Your task to perform on an android device: Go to accessibility settings Image 0: 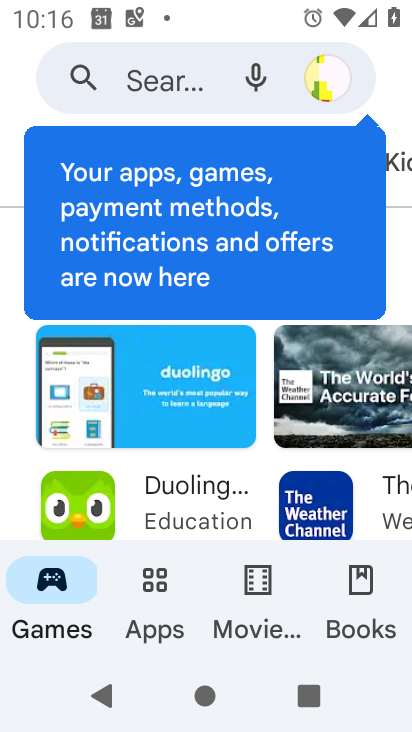
Step 0: press home button
Your task to perform on an android device: Go to accessibility settings Image 1: 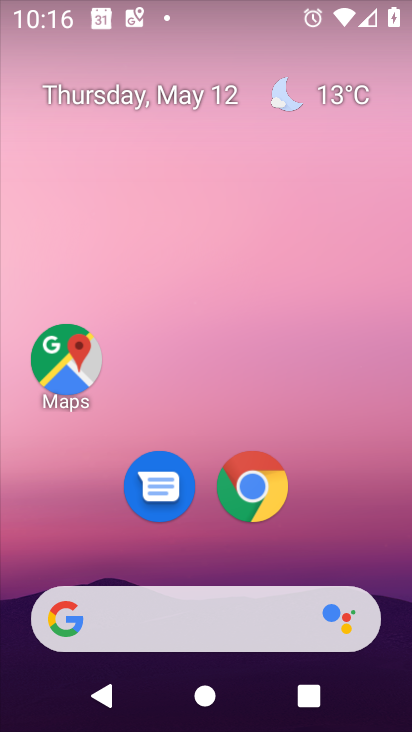
Step 1: drag from (349, 331) to (287, 6)
Your task to perform on an android device: Go to accessibility settings Image 2: 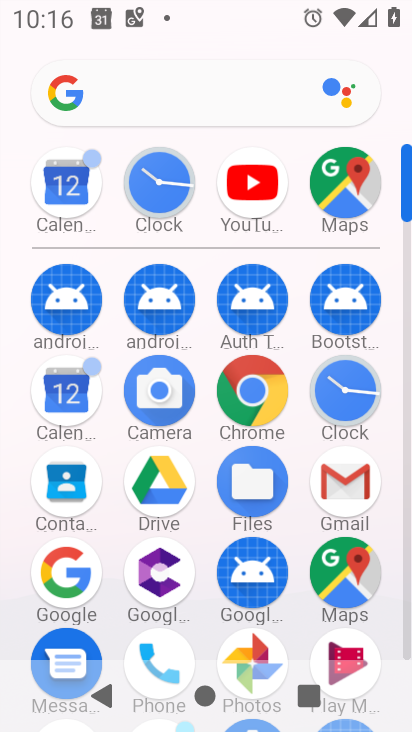
Step 2: drag from (202, 260) to (189, 30)
Your task to perform on an android device: Go to accessibility settings Image 3: 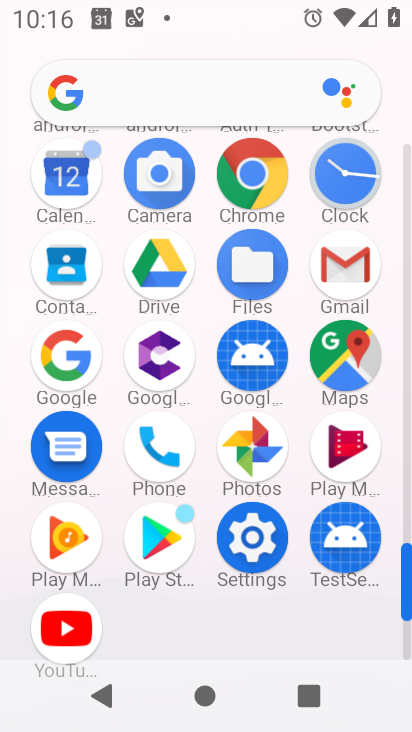
Step 3: click (262, 548)
Your task to perform on an android device: Go to accessibility settings Image 4: 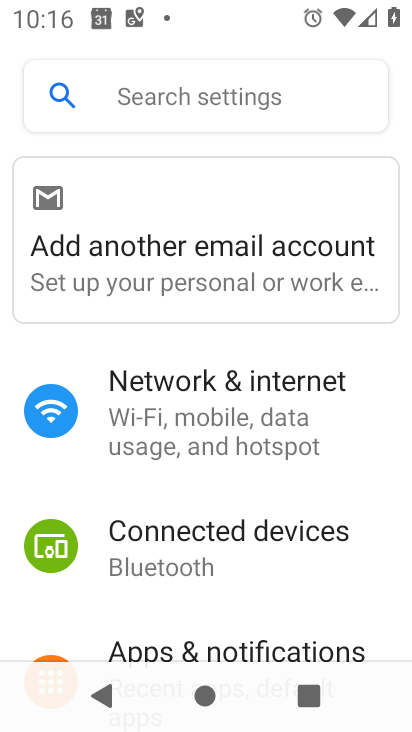
Step 4: drag from (321, 600) to (225, 289)
Your task to perform on an android device: Go to accessibility settings Image 5: 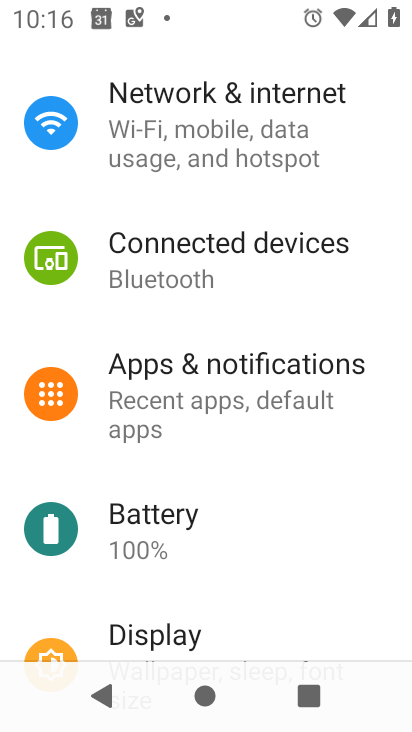
Step 5: drag from (296, 536) to (213, 191)
Your task to perform on an android device: Go to accessibility settings Image 6: 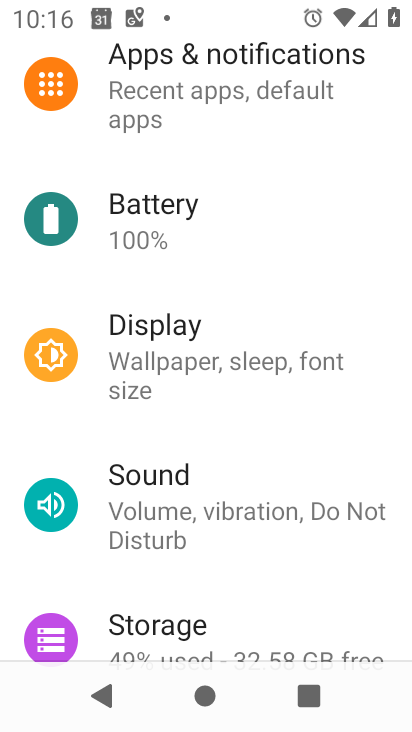
Step 6: drag from (296, 548) to (242, 244)
Your task to perform on an android device: Go to accessibility settings Image 7: 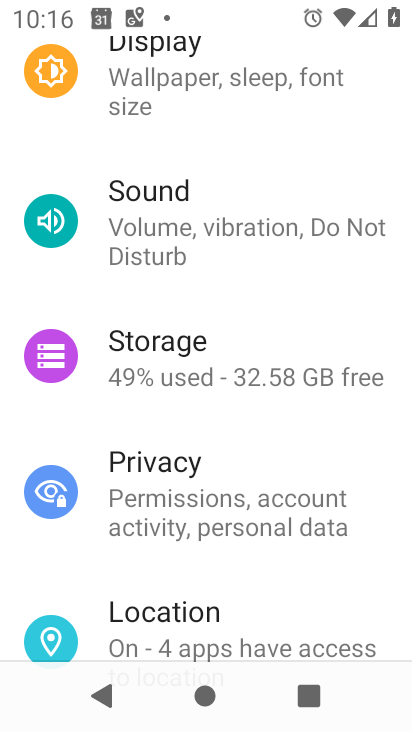
Step 7: drag from (309, 583) to (281, 197)
Your task to perform on an android device: Go to accessibility settings Image 8: 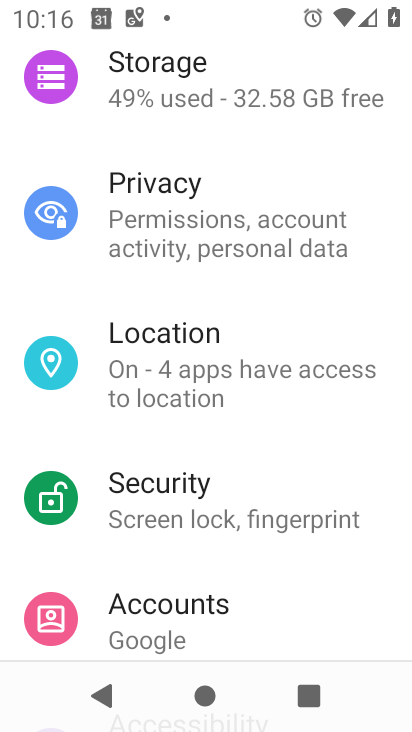
Step 8: drag from (339, 555) to (267, 213)
Your task to perform on an android device: Go to accessibility settings Image 9: 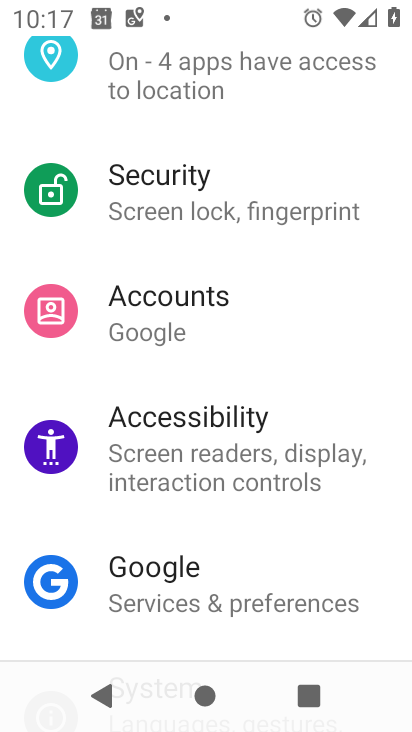
Step 9: click (274, 460)
Your task to perform on an android device: Go to accessibility settings Image 10: 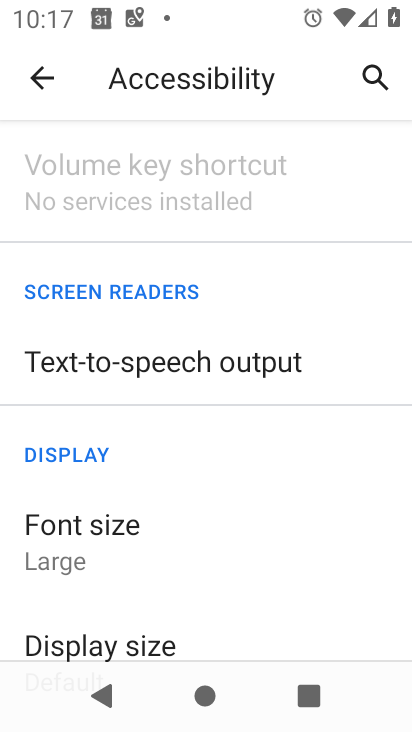
Step 10: task complete